Your task to perform on an android device: toggle translation in the chrome app Image 0: 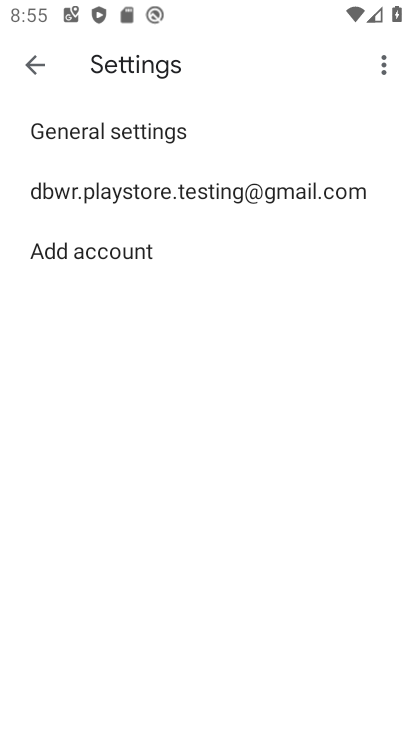
Step 0: press home button
Your task to perform on an android device: toggle translation in the chrome app Image 1: 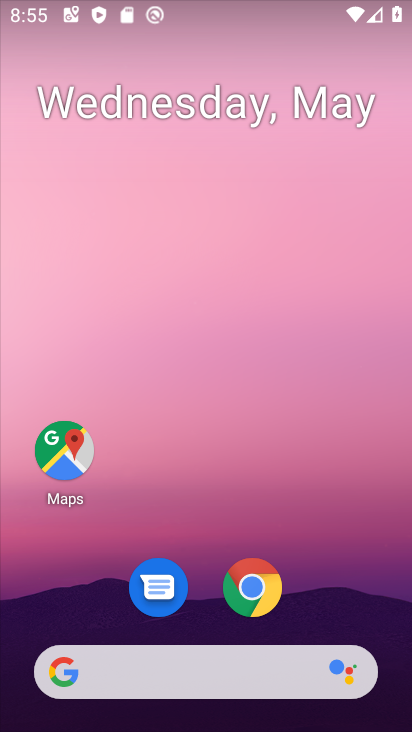
Step 1: click (250, 585)
Your task to perform on an android device: toggle translation in the chrome app Image 2: 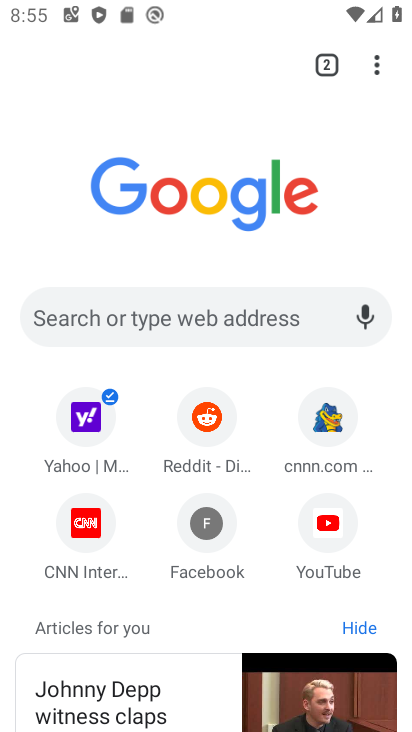
Step 2: click (372, 73)
Your task to perform on an android device: toggle translation in the chrome app Image 3: 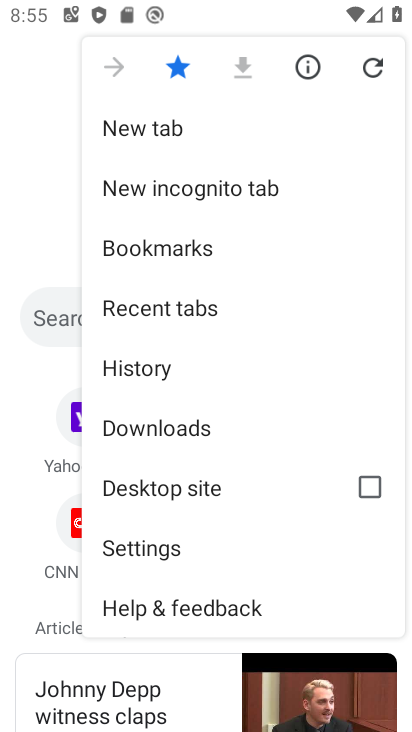
Step 3: click (152, 560)
Your task to perform on an android device: toggle translation in the chrome app Image 4: 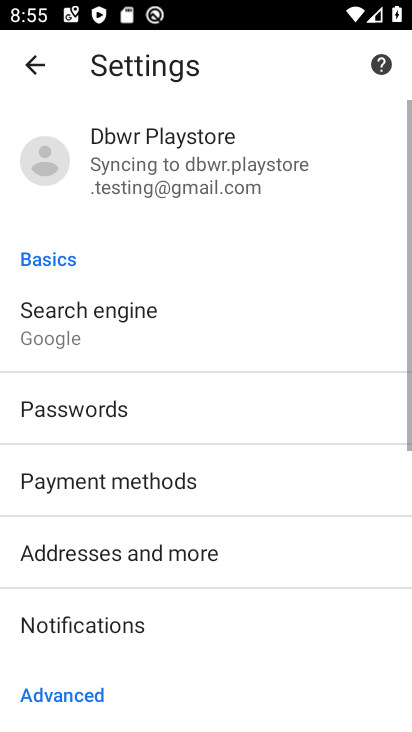
Step 4: drag from (254, 647) to (270, 133)
Your task to perform on an android device: toggle translation in the chrome app Image 5: 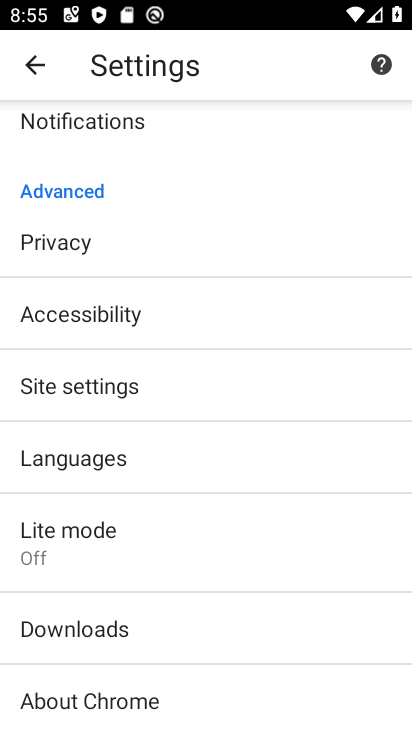
Step 5: click (61, 450)
Your task to perform on an android device: toggle translation in the chrome app Image 6: 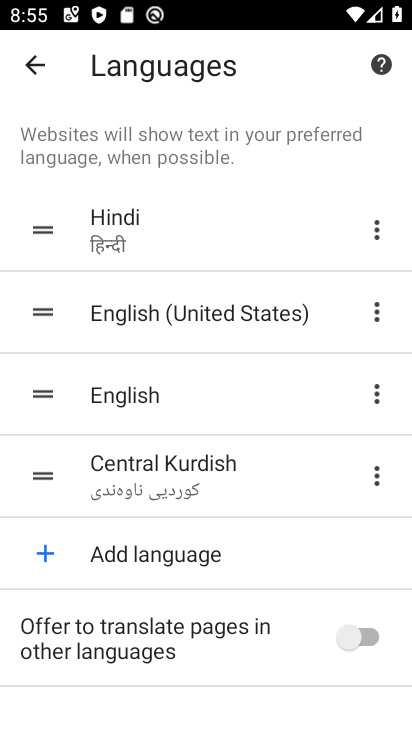
Step 6: click (371, 633)
Your task to perform on an android device: toggle translation in the chrome app Image 7: 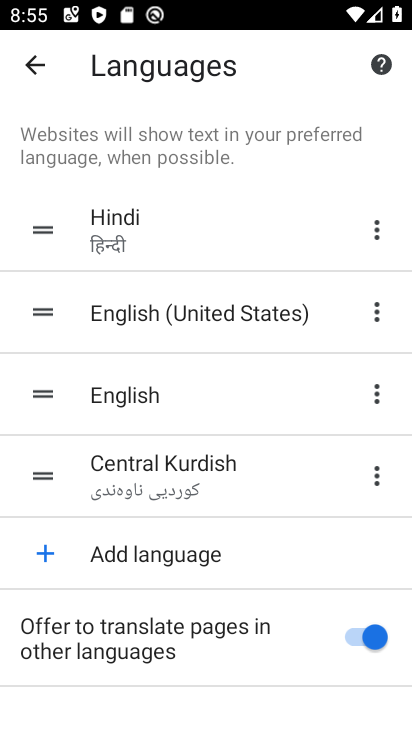
Step 7: task complete